Your task to perform on an android device: Do I have any events this weekend? Image 0: 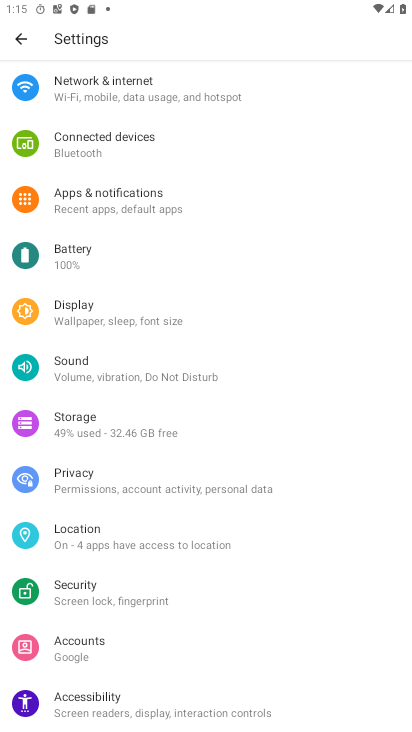
Step 0: drag from (175, 321) to (384, 730)
Your task to perform on an android device: Do I have any events this weekend? Image 1: 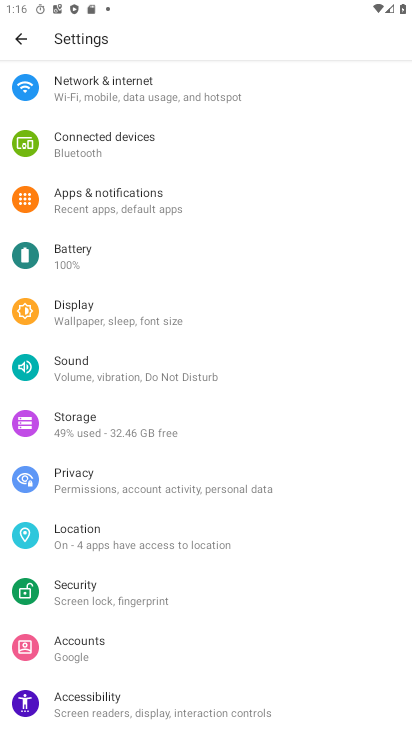
Step 1: press home button
Your task to perform on an android device: Do I have any events this weekend? Image 2: 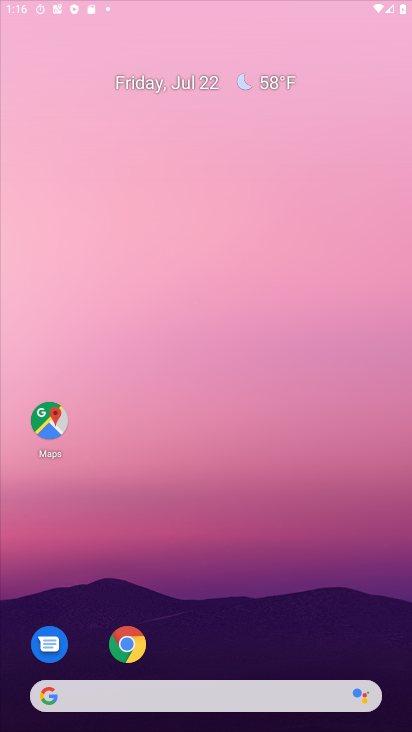
Step 2: drag from (171, 642) to (215, 287)
Your task to perform on an android device: Do I have any events this weekend? Image 3: 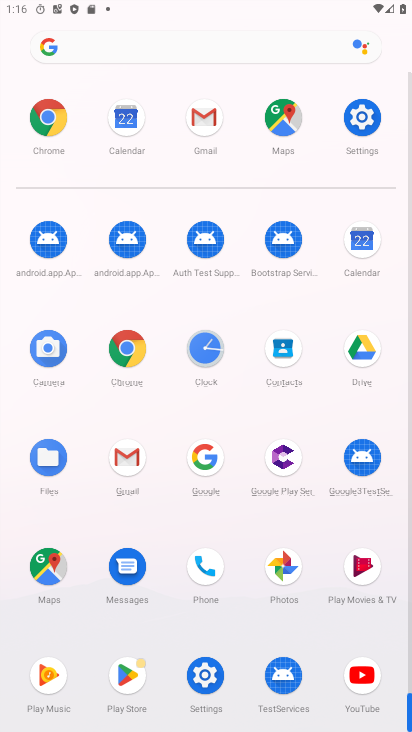
Step 3: click (361, 240)
Your task to perform on an android device: Do I have any events this weekend? Image 4: 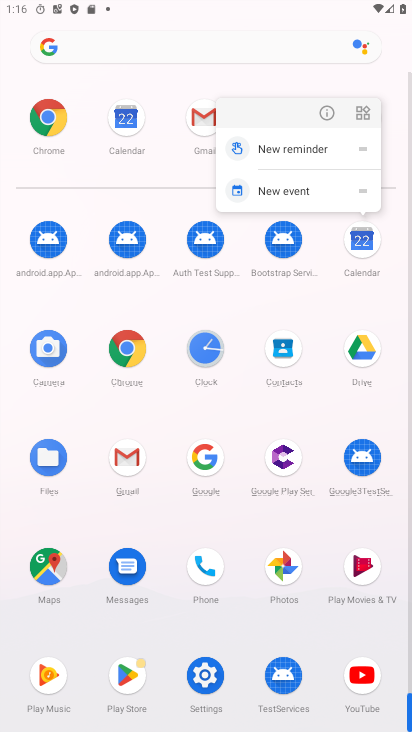
Step 4: click (322, 115)
Your task to perform on an android device: Do I have any events this weekend? Image 5: 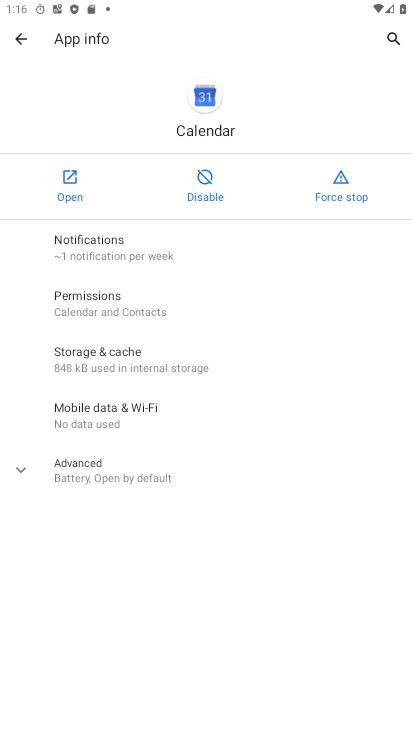
Step 5: click (68, 206)
Your task to perform on an android device: Do I have any events this weekend? Image 6: 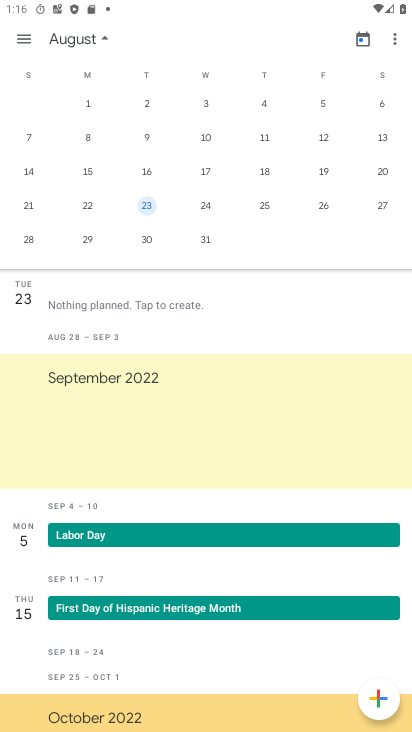
Step 6: drag from (58, 136) to (410, 164)
Your task to perform on an android device: Do I have any events this weekend? Image 7: 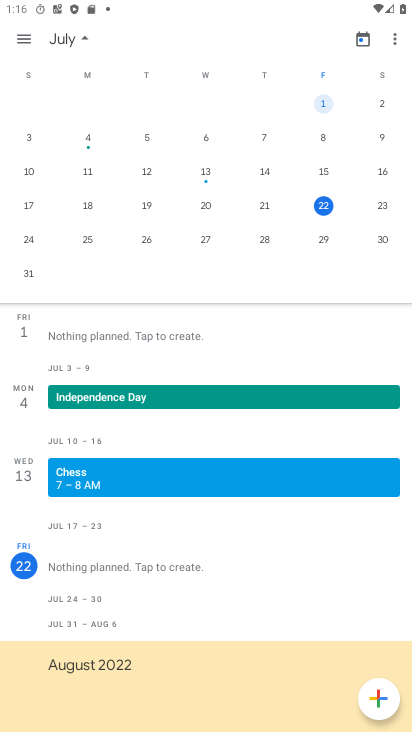
Step 7: click (380, 208)
Your task to perform on an android device: Do I have any events this weekend? Image 8: 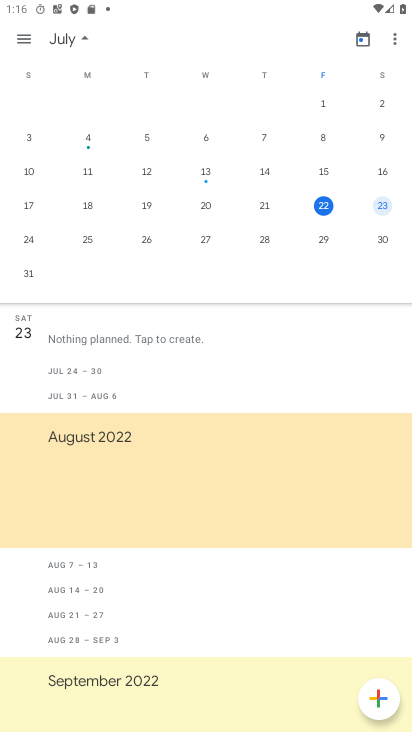
Step 8: task complete